Your task to perform on an android device: Open Maps and search for coffee Image 0: 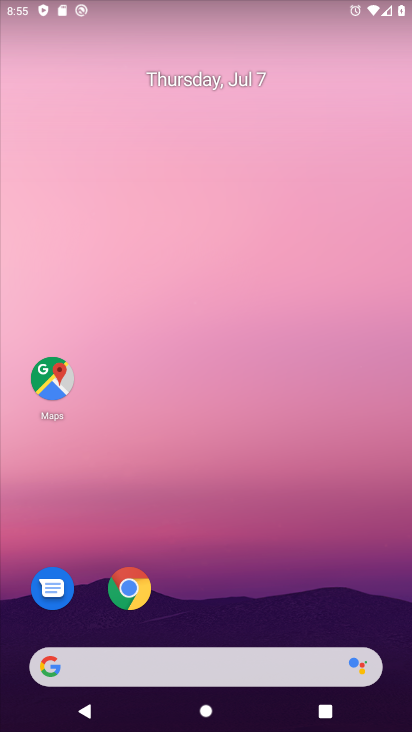
Step 0: press home button
Your task to perform on an android device: Open Maps and search for coffee Image 1: 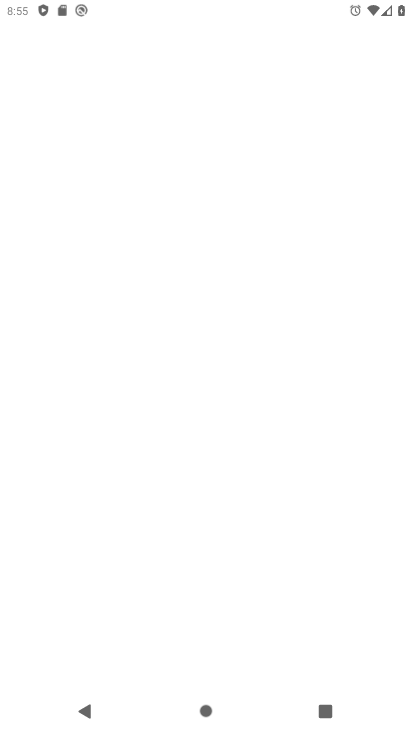
Step 1: drag from (228, 296) to (253, 51)
Your task to perform on an android device: Open Maps and search for coffee Image 2: 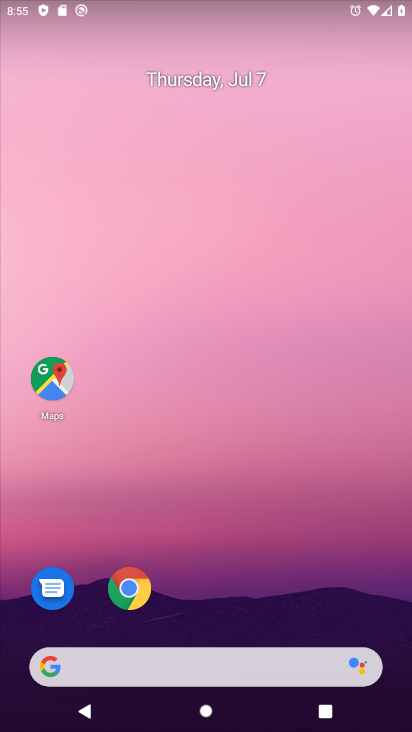
Step 2: drag from (226, 622) to (231, 16)
Your task to perform on an android device: Open Maps and search for coffee Image 3: 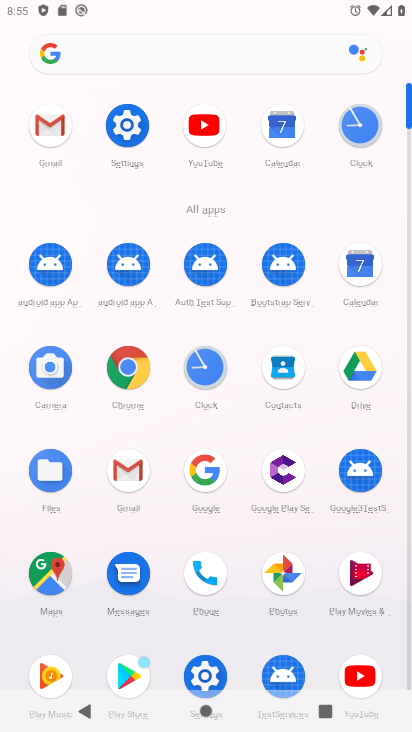
Step 3: click (48, 566)
Your task to perform on an android device: Open Maps and search for coffee Image 4: 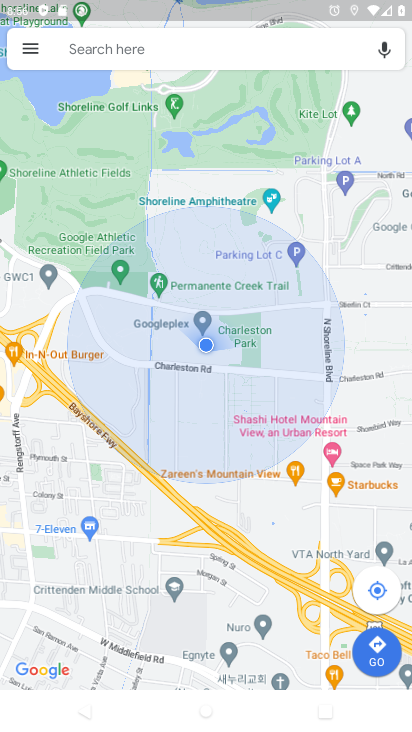
Step 4: click (131, 41)
Your task to perform on an android device: Open Maps and search for coffee Image 5: 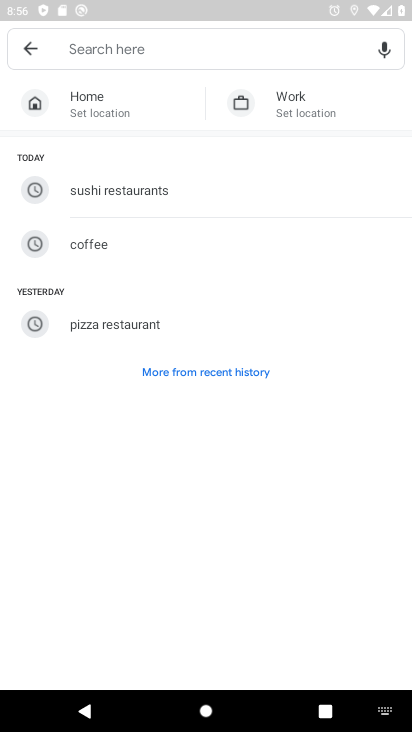
Step 5: click (103, 242)
Your task to perform on an android device: Open Maps and search for coffee Image 6: 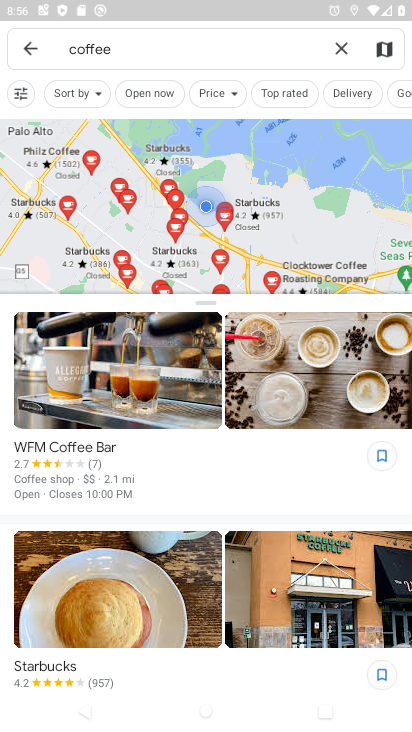
Step 6: task complete